Your task to perform on an android device: Clear all items from cart on newegg.com. Search for amazon basics triple a on newegg.com, select the first entry, add it to the cart, then select checkout. Image 0: 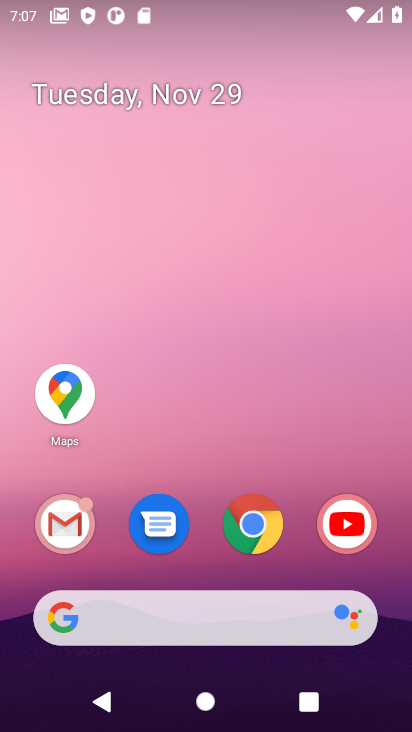
Step 0: click (251, 532)
Your task to perform on an android device: Clear all items from cart on newegg.com. Search for amazon basics triple a on newegg.com, select the first entry, add it to the cart, then select checkout. Image 1: 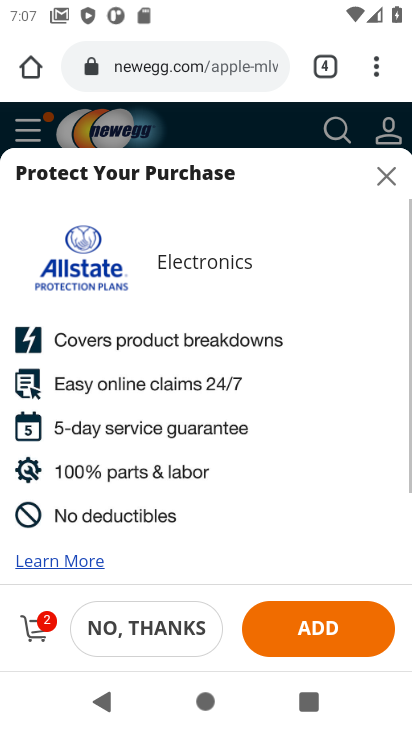
Step 1: click (38, 629)
Your task to perform on an android device: Clear all items from cart on newegg.com. Search for amazon basics triple a on newegg.com, select the first entry, add it to the cart, then select checkout. Image 2: 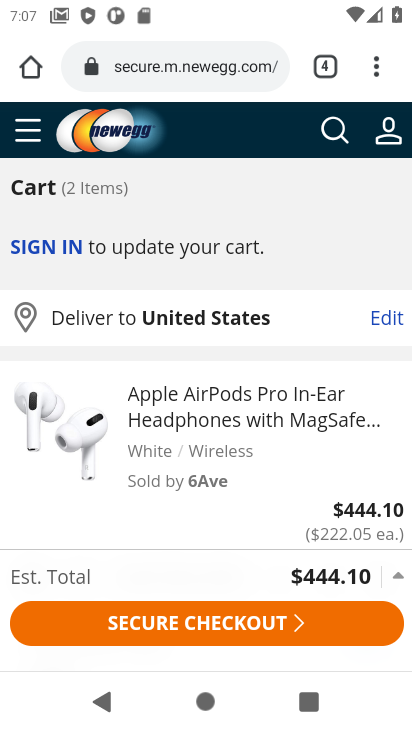
Step 2: drag from (208, 458) to (196, 304)
Your task to perform on an android device: Clear all items from cart on newegg.com. Search for amazon basics triple a on newegg.com, select the first entry, add it to the cart, then select checkout. Image 3: 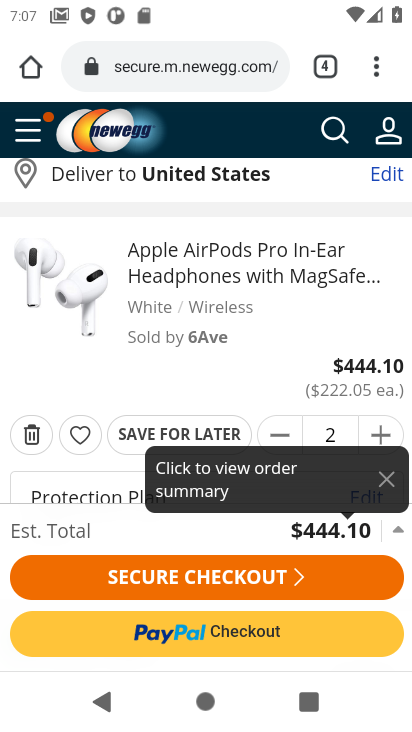
Step 3: click (33, 432)
Your task to perform on an android device: Clear all items from cart on newegg.com. Search for amazon basics triple a on newegg.com, select the first entry, add it to the cart, then select checkout. Image 4: 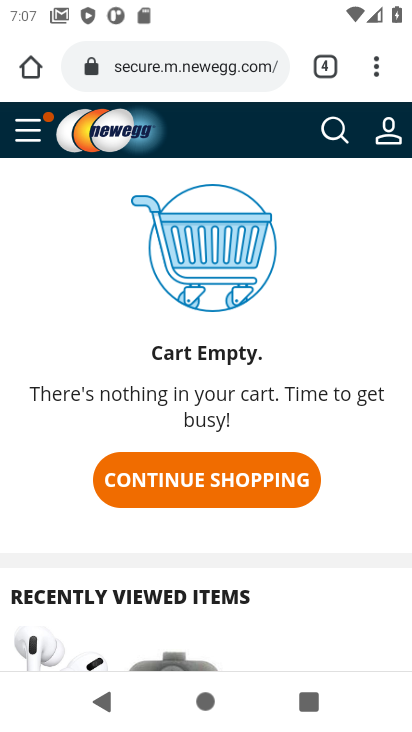
Step 4: click (330, 131)
Your task to perform on an android device: Clear all items from cart on newegg.com. Search for amazon basics triple a on newegg.com, select the first entry, add it to the cart, then select checkout. Image 5: 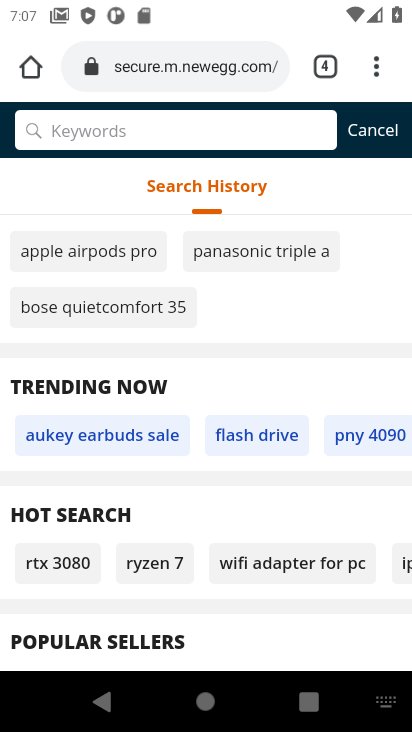
Step 5: type "amazon basics triple a"
Your task to perform on an android device: Clear all items from cart on newegg.com. Search for amazon basics triple a on newegg.com, select the first entry, add it to the cart, then select checkout. Image 6: 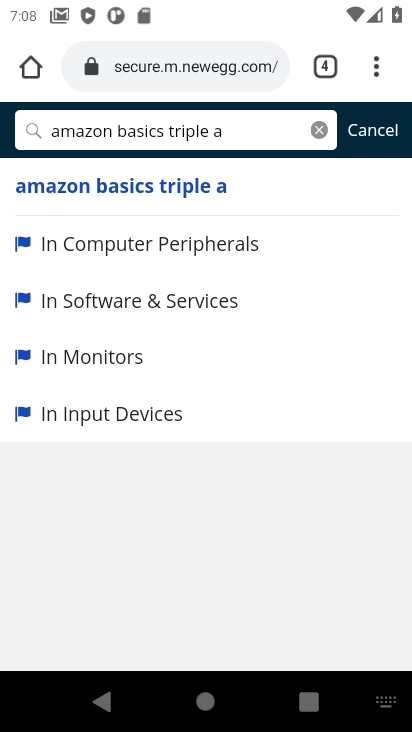
Step 6: click (146, 195)
Your task to perform on an android device: Clear all items from cart on newegg.com. Search for amazon basics triple a on newegg.com, select the first entry, add it to the cart, then select checkout. Image 7: 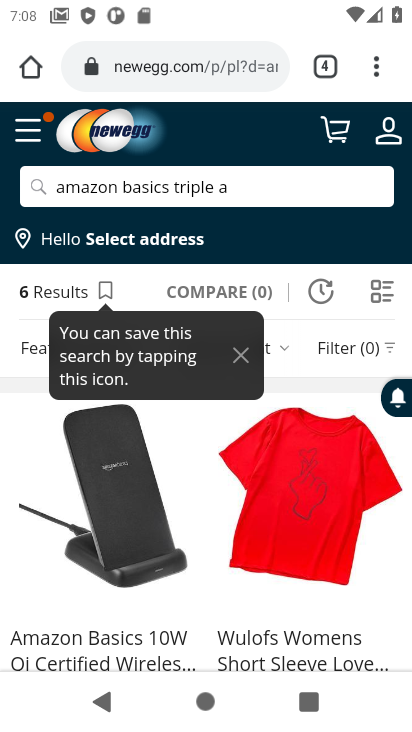
Step 7: task complete